Your task to perform on an android device: turn on translation in the chrome app Image 0: 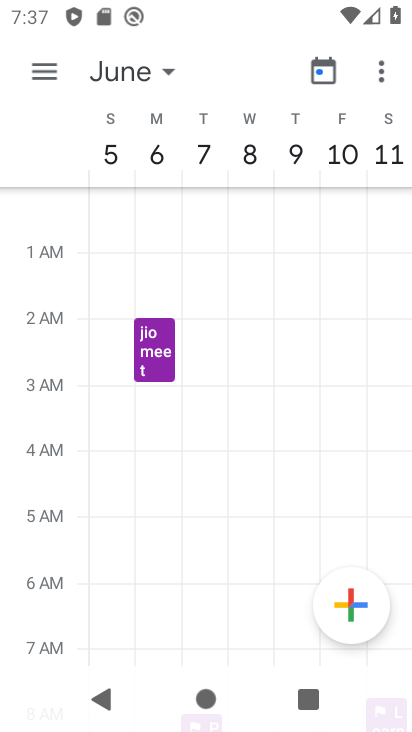
Step 0: press home button
Your task to perform on an android device: turn on translation in the chrome app Image 1: 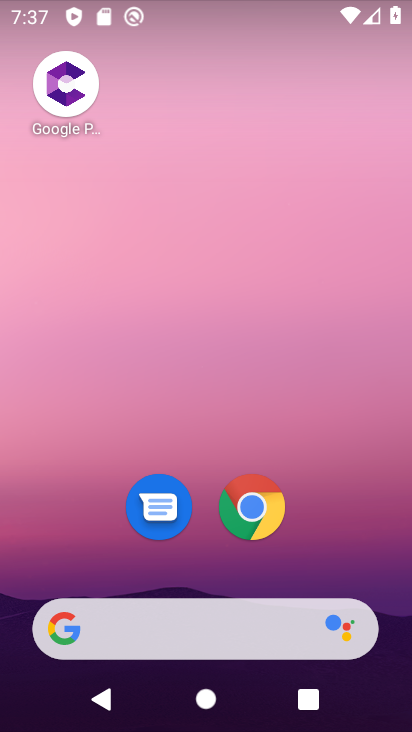
Step 1: click (253, 512)
Your task to perform on an android device: turn on translation in the chrome app Image 2: 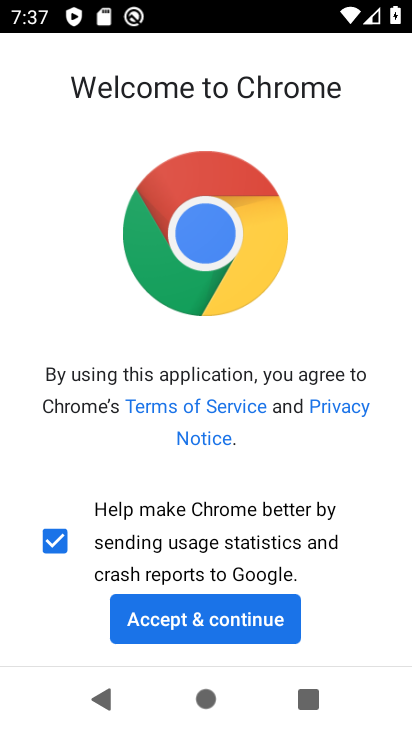
Step 2: click (192, 634)
Your task to perform on an android device: turn on translation in the chrome app Image 3: 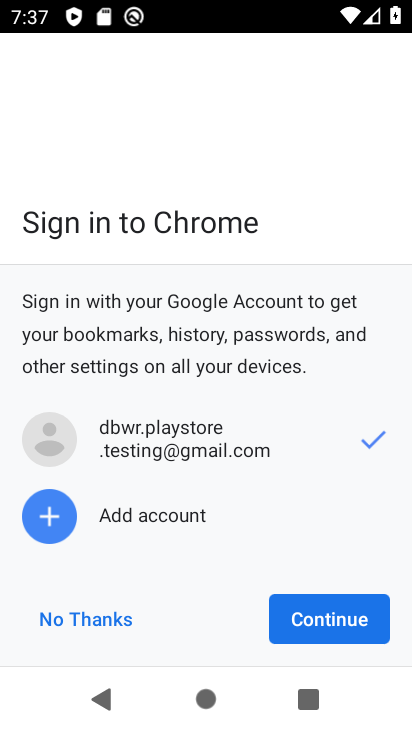
Step 3: click (76, 622)
Your task to perform on an android device: turn on translation in the chrome app Image 4: 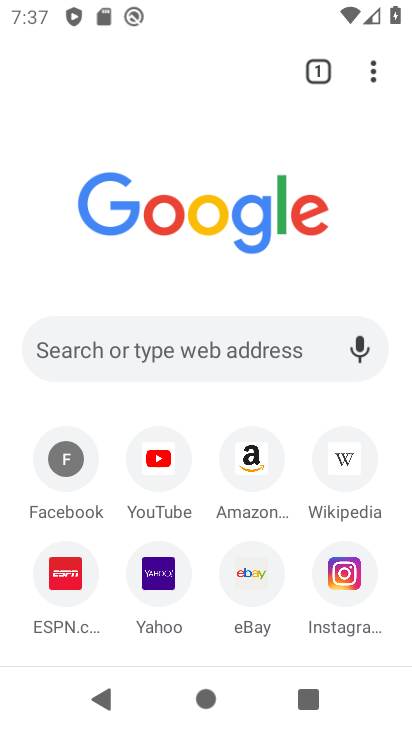
Step 4: click (373, 73)
Your task to perform on an android device: turn on translation in the chrome app Image 5: 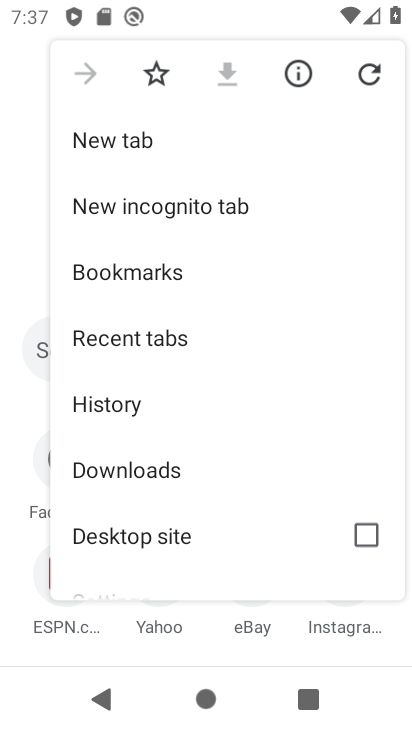
Step 5: drag from (242, 525) to (210, 123)
Your task to perform on an android device: turn on translation in the chrome app Image 6: 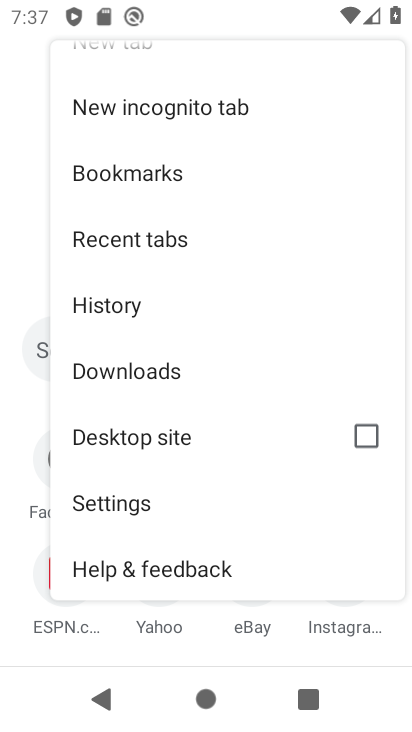
Step 6: click (109, 505)
Your task to perform on an android device: turn on translation in the chrome app Image 7: 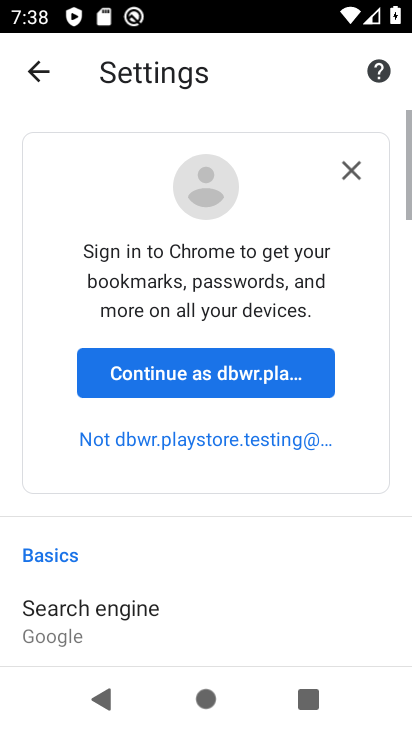
Step 7: drag from (226, 594) to (218, 127)
Your task to perform on an android device: turn on translation in the chrome app Image 8: 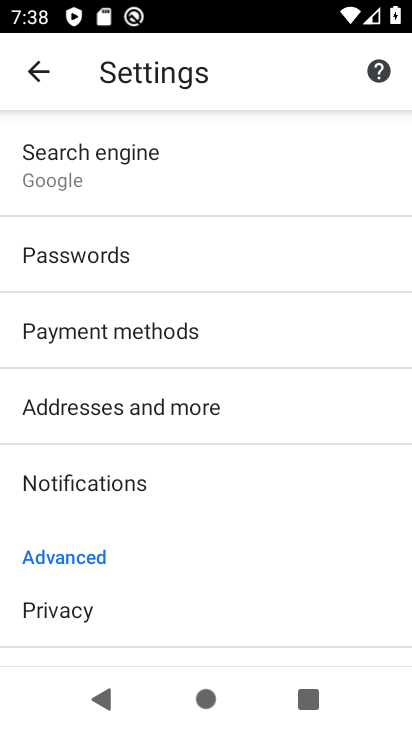
Step 8: drag from (179, 566) to (152, 178)
Your task to perform on an android device: turn on translation in the chrome app Image 9: 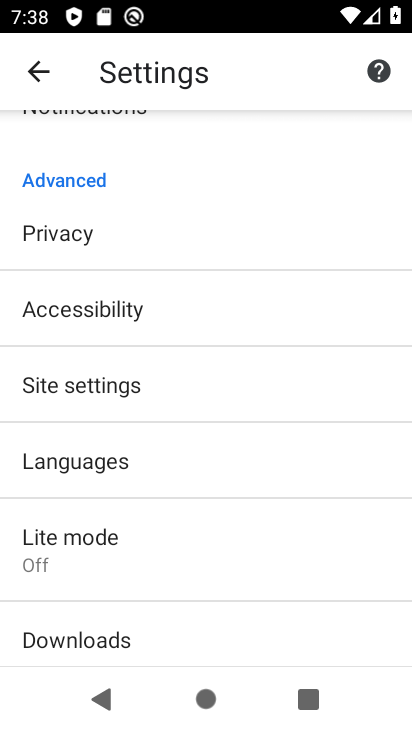
Step 9: click (76, 460)
Your task to perform on an android device: turn on translation in the chrome app Image 10: 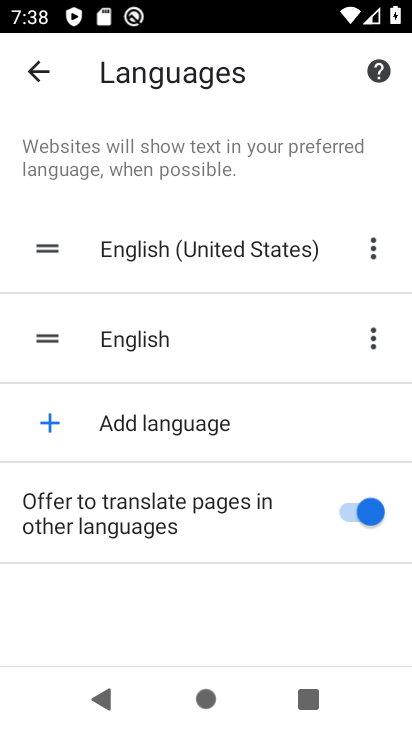
Step 10: task complete